Your task to perform on an android device: turn vacation reply on in the gmail app Image 0: 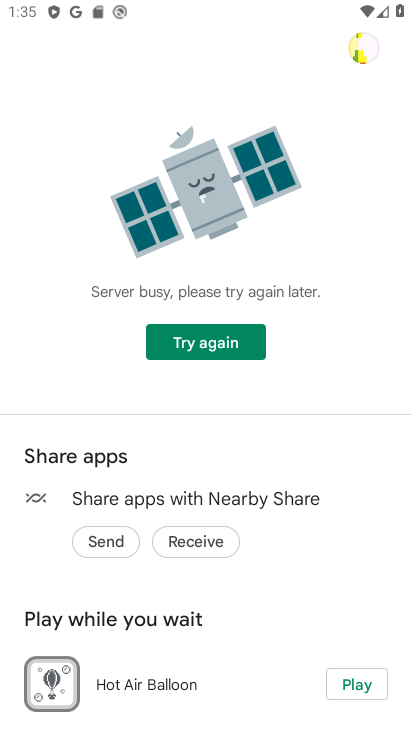
Step 0: press home button
Your task to perform on an android device: turn vacation reply on in the gmail app Image 1: 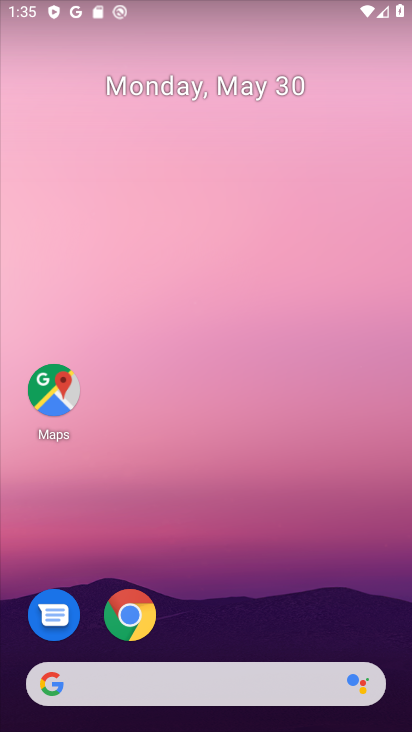
Step 1: drag from (318, 617) to (261, 88)
Your task to perform on an android device: turn vacation reply on in the gmail app Image 2: 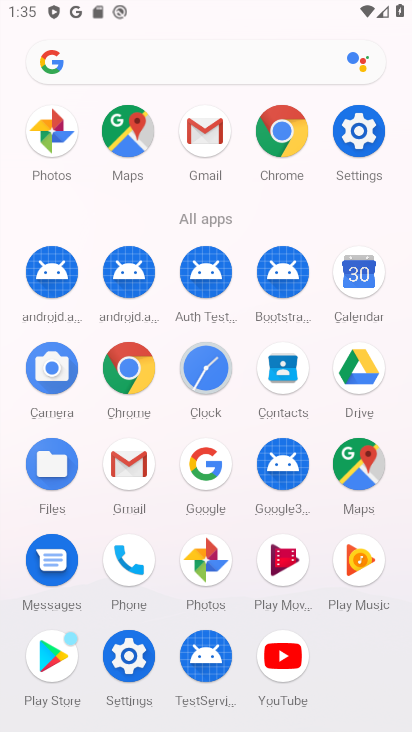
Step 2: click (124, 465)
Your task to perform on an android device: turn vacation reply on in the gmail app Image 3: 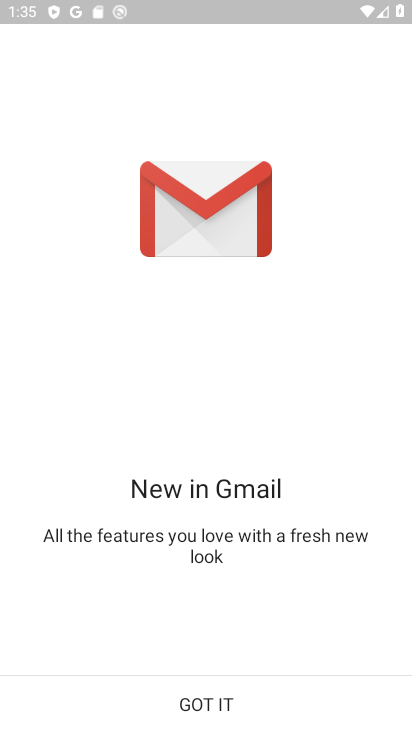
Step 3: click (243, 695)
Your task to perform on an android device: turn vacation reply on in the gmail app Image 4: 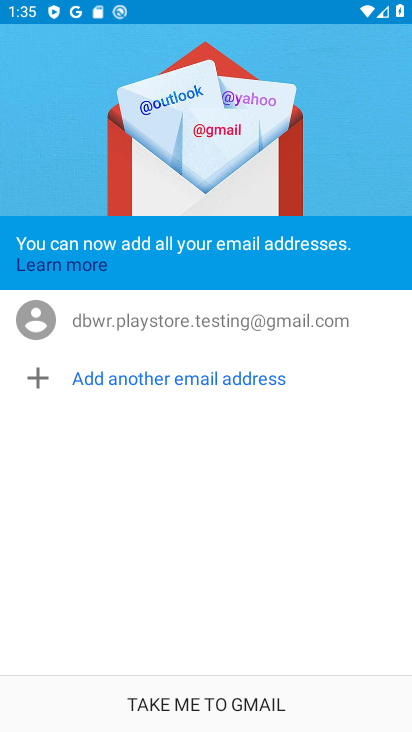
Step 4: click (241, 685)
Your task to perform on an android device: turn vacation reply on in the gmail app Image 5: 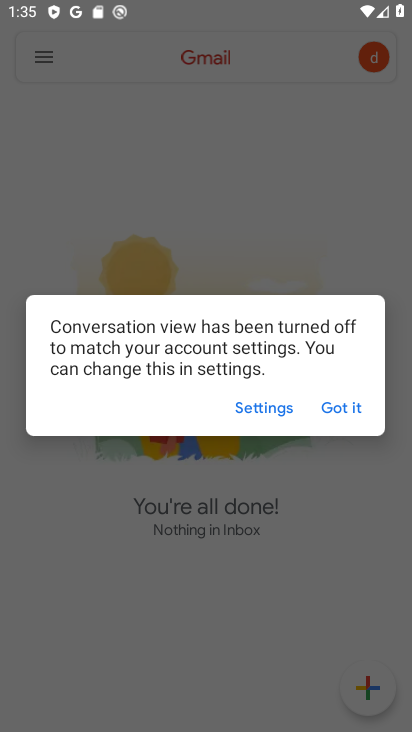
Step 5: click (341, 398)
Your task to perform on an android device: turn vacation reply on in the gmail app Image 6: 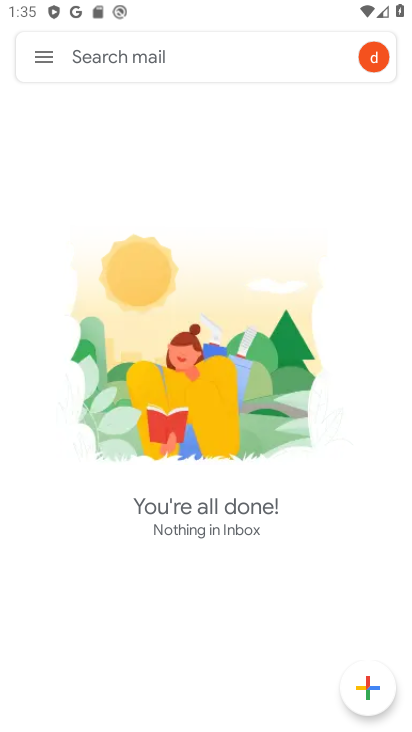
Step 6: click (49, 65)
Your task to perform on an android device: turn vacation reply on in the gmail app Image 7: 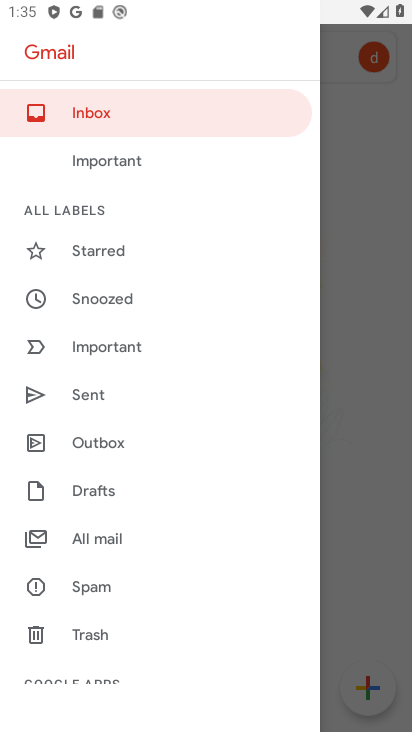
Step 7: drag from (160, 640) to (136, 356)
Your task to perform on an android device: turn vacation reply on in the gmail app Image 8: 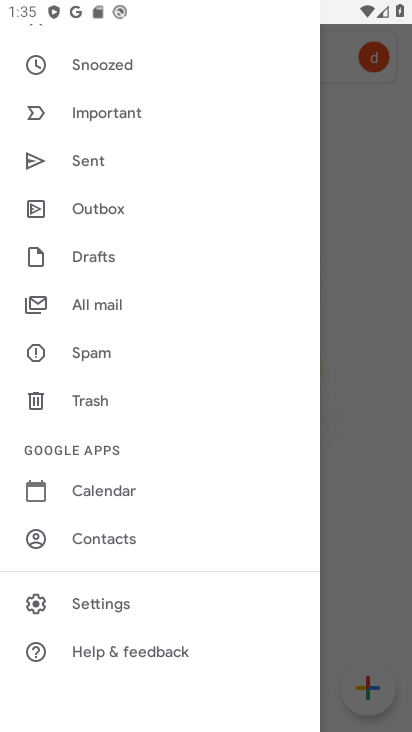
Step 8: click (111, 601)
Your task to perform on an android device: turn vacation reply on in the gmail app Image 9: 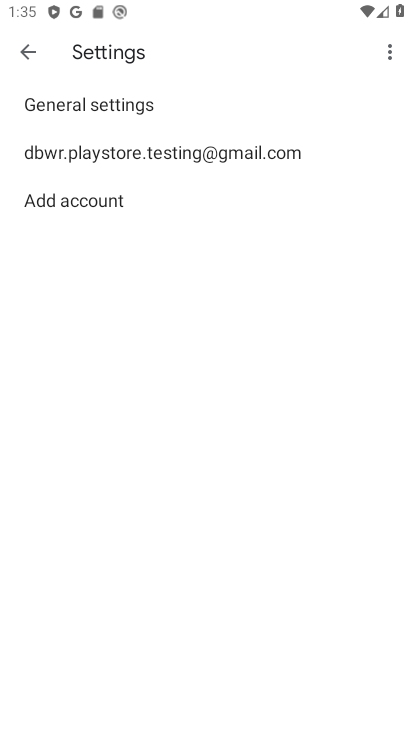
Step 9: click (155, 150)
Your task to perform on an android device: turn vacation reply on in the gmail app Image 10: 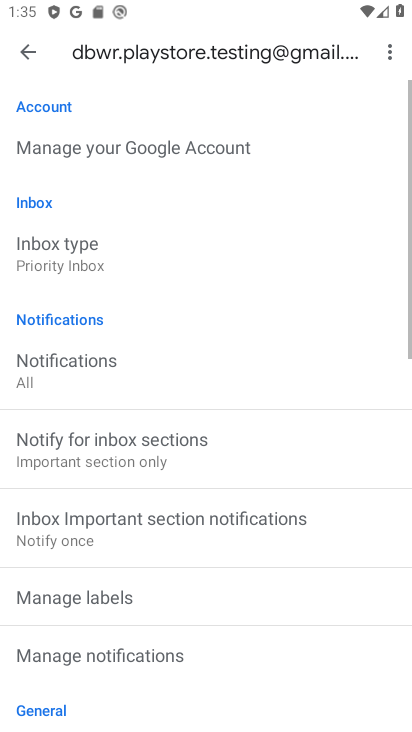
Step 10: drag from (214, 641) to (175, 113)
Your task to perform on an android device: turn vacation reply on in the gmail app Image 11: 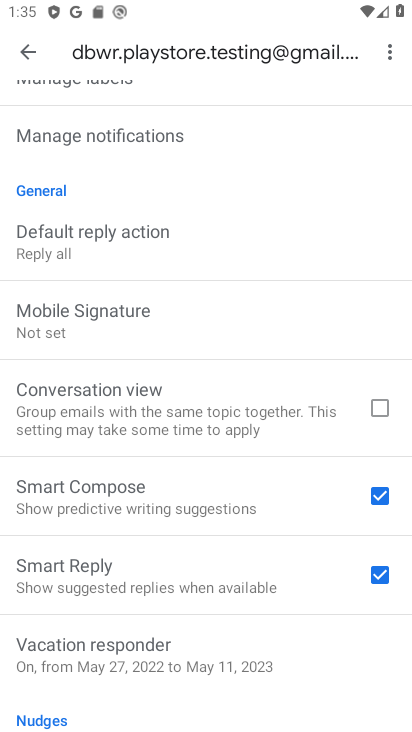
Step 11: click (168, 645)
Your task to perform on an android device: turn vacation reply on in the gmail app Image 12: 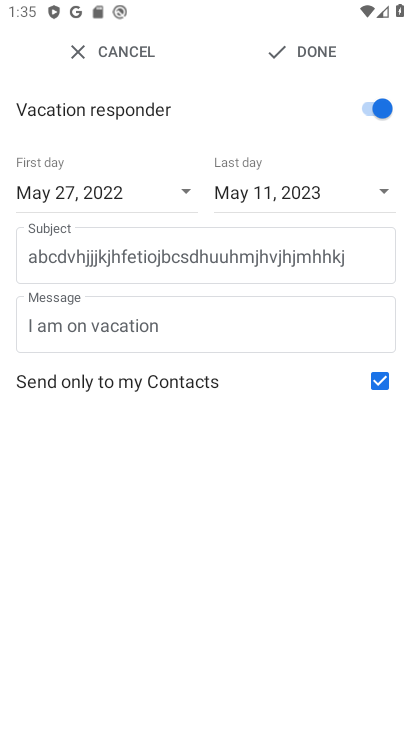
Step 12: click (323, 49)
Your task to perform on an android device: turn vacation reply on in the gmail app Image 13: 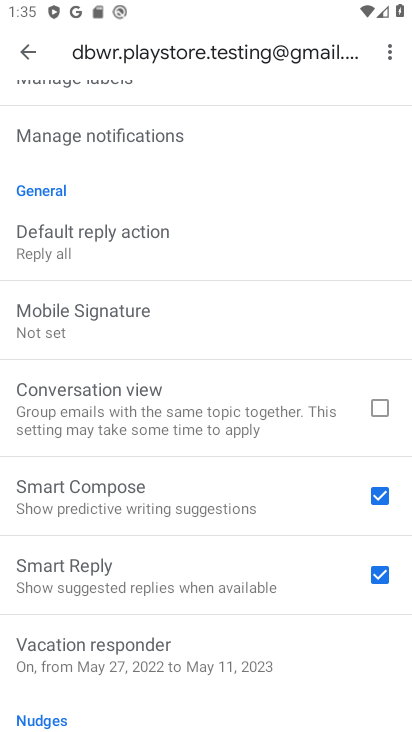
Step 13: task complete